Your task to perform on an android device: open wifi settings Image 0: 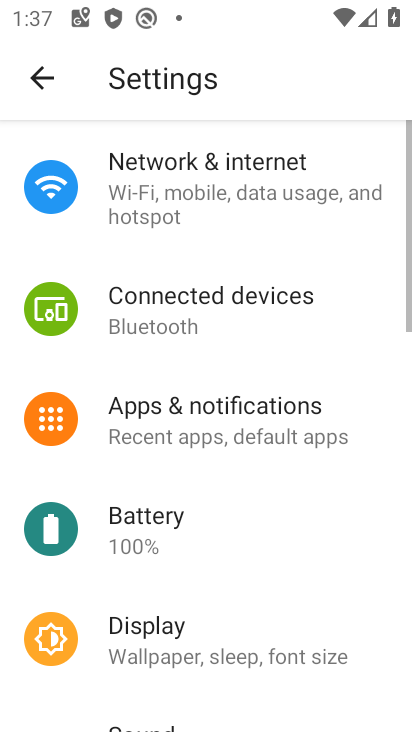
Step 0: drag from (237, 592) to (230, 529)
Your task to perform on an android device: open wifi settings Image 1: 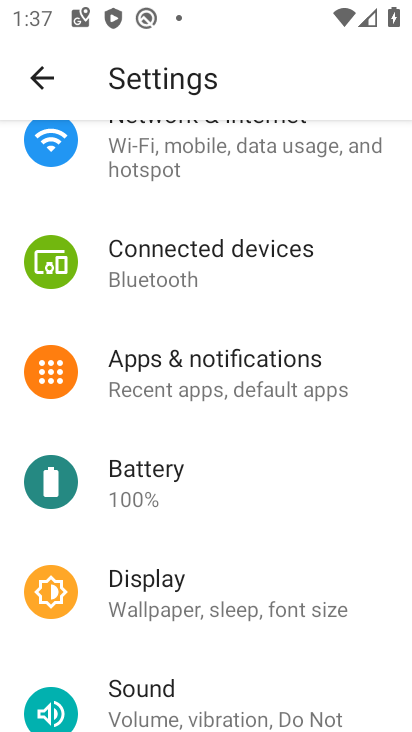
Step 1: click (171, 140)
Your task to perform on an android device: open wifi settings Image 2: 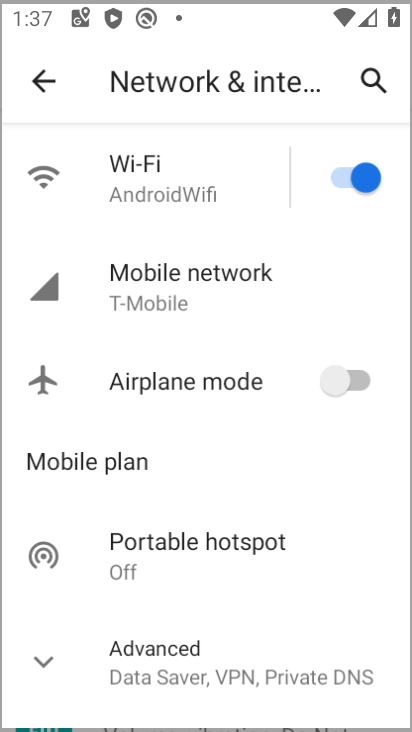
Step 2: click (171, 140)
Your task to perform on an android device: open wifi settings Image 3: 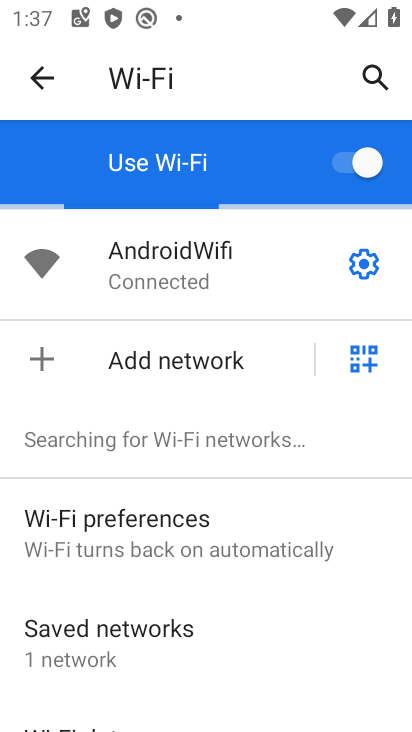
Step 3: task complete